Your task to perform on an android device: Search for pizza restaurants on Maps Image 0: 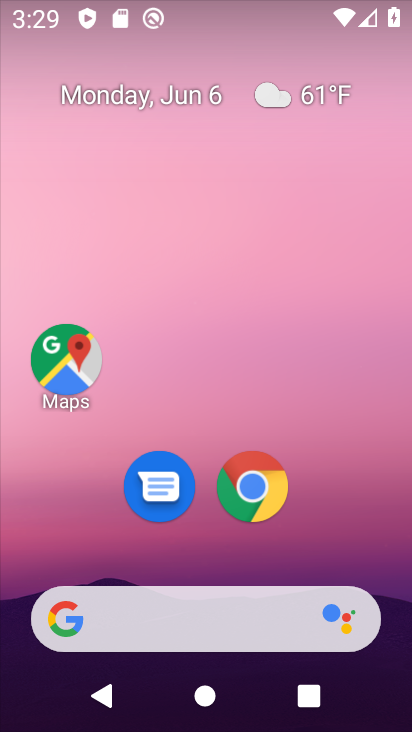
Step 0: click (74, 361)
Your task to perform on an android device: Search for pizza restaurants on Maps Image 1: 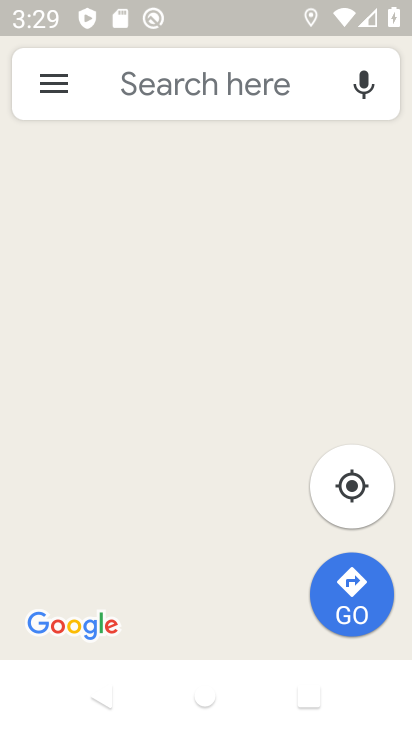
Step 1: click (281, 93)
Your task to perform on an android device: Search for pizza restaurants on Maps Image 2: 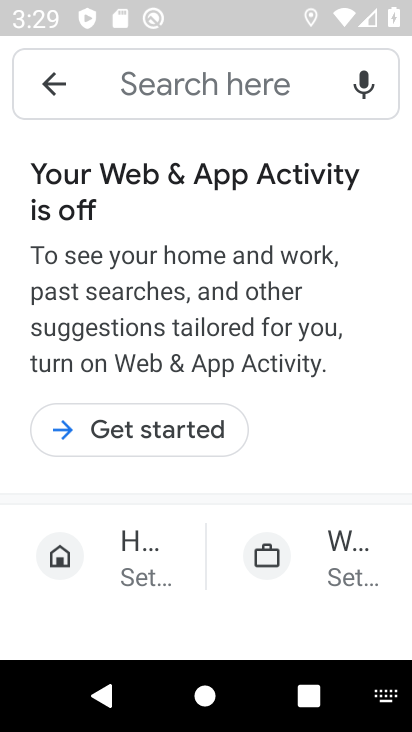
Step 2: type "pizza restaurants"
Your task to perform on an android device: Search for pizza restaurants on Maps Image 3: 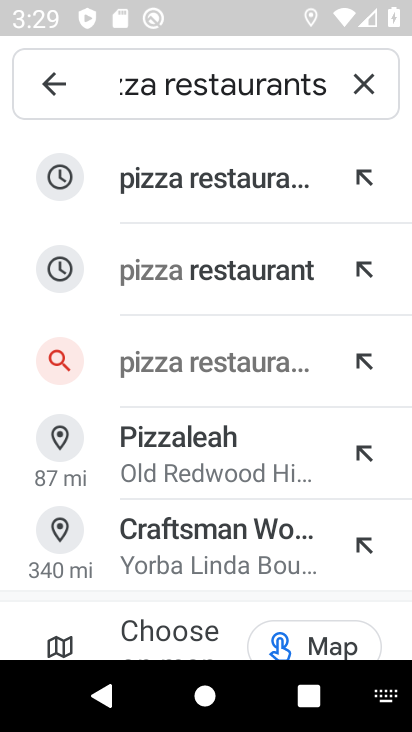
Step 3: press enter
Your task to perform on an android device: Search for pizza restaurants on Maps Image 4: 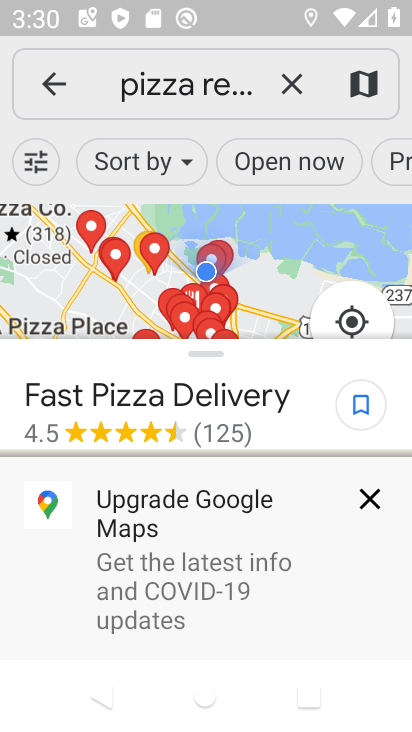
Step 4: click (370, 500)
Your task to perform on an android device: Search for pizza restaurants on Maps Image 5: 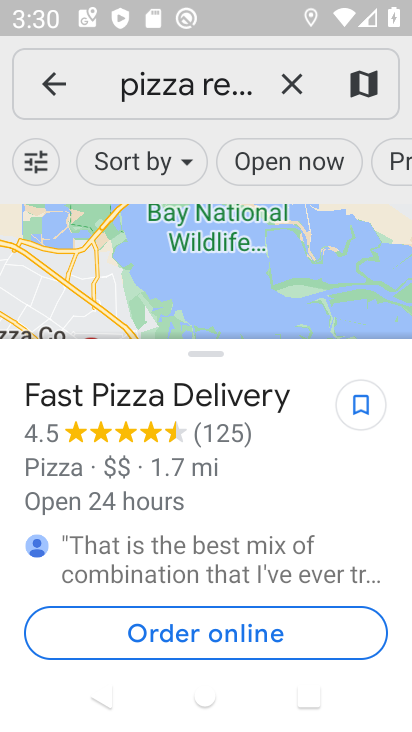
Step 5: task complete